Your task to perform on an android device: empty trash in google photos Image 0: 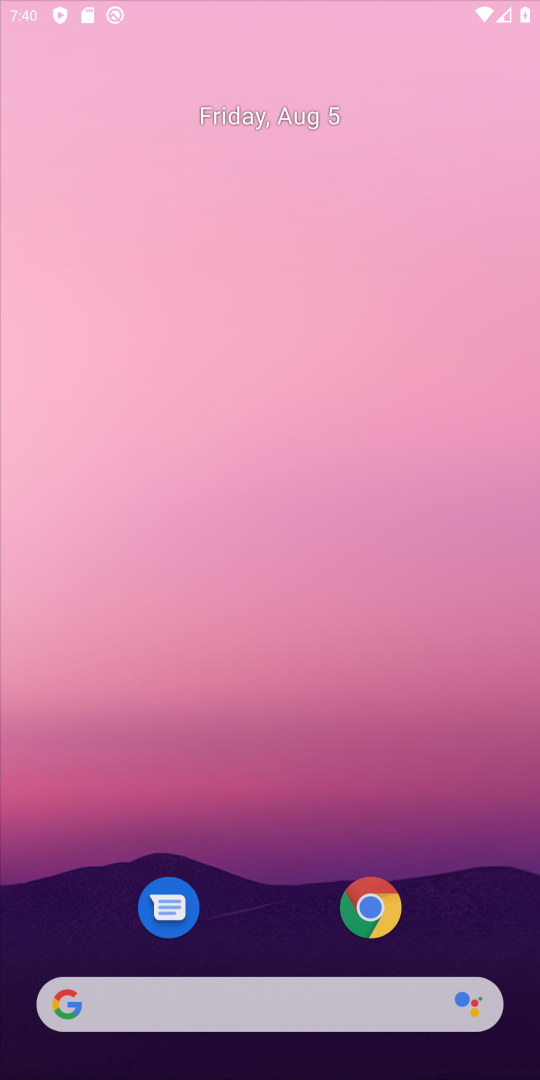
Step 0: press home button
Your task to perform on an android device: empty trash in google photos Image 1: 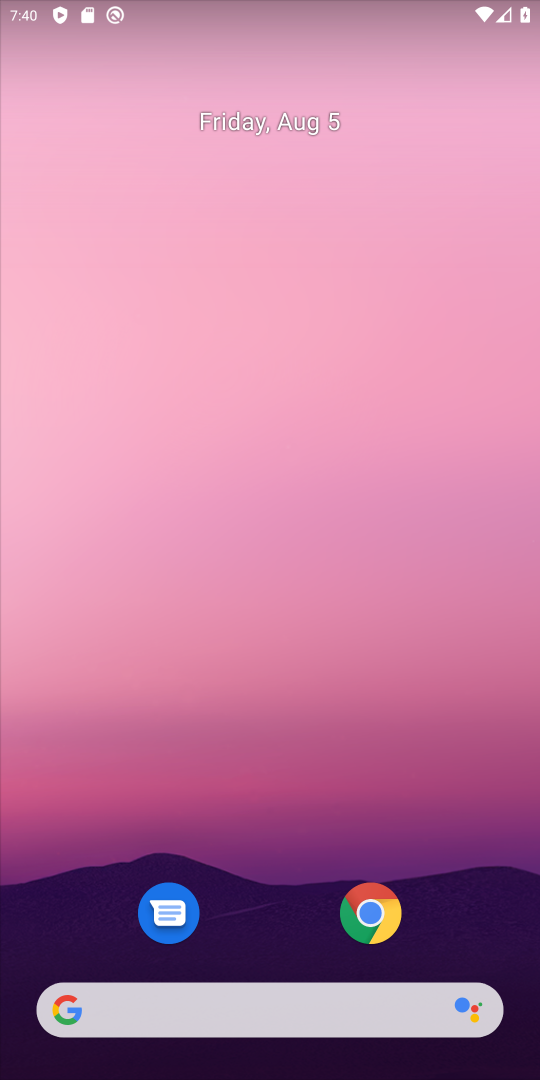
Step 1: drag from (272, 924) to (276, 316)
Your task to perform on an android device: empty trash in google photos Image 2: 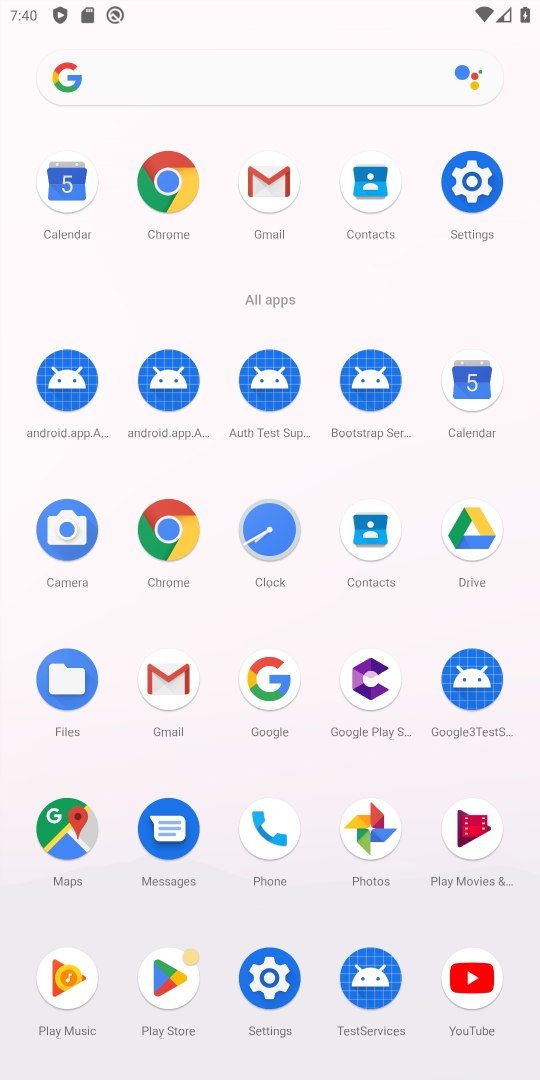
Step 2: click (374, 818)
Your task to perform on an android device: empty trash in google photos Image 3: 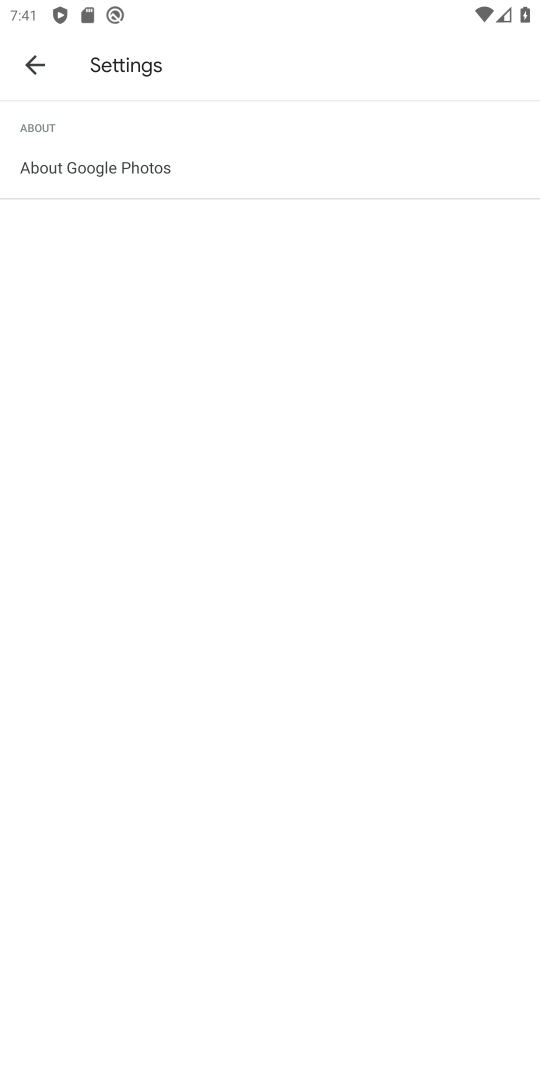
Step 3: press back button
Your task to perform on an android device: empty trash in google photos Image 4: 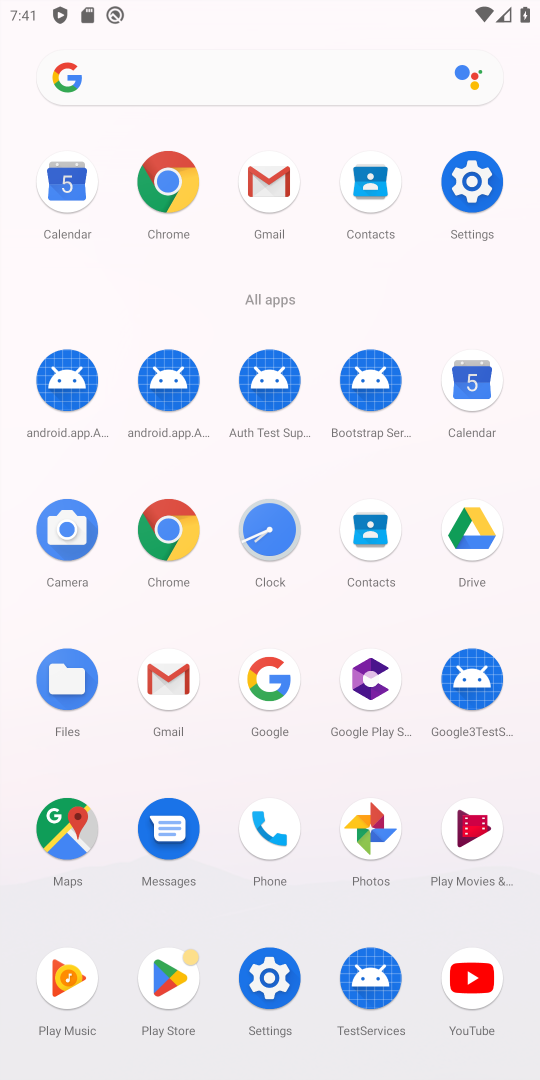
Step 4: click (378, 837)
Your task to perform on an android device: empty trash in google photos Image 5: 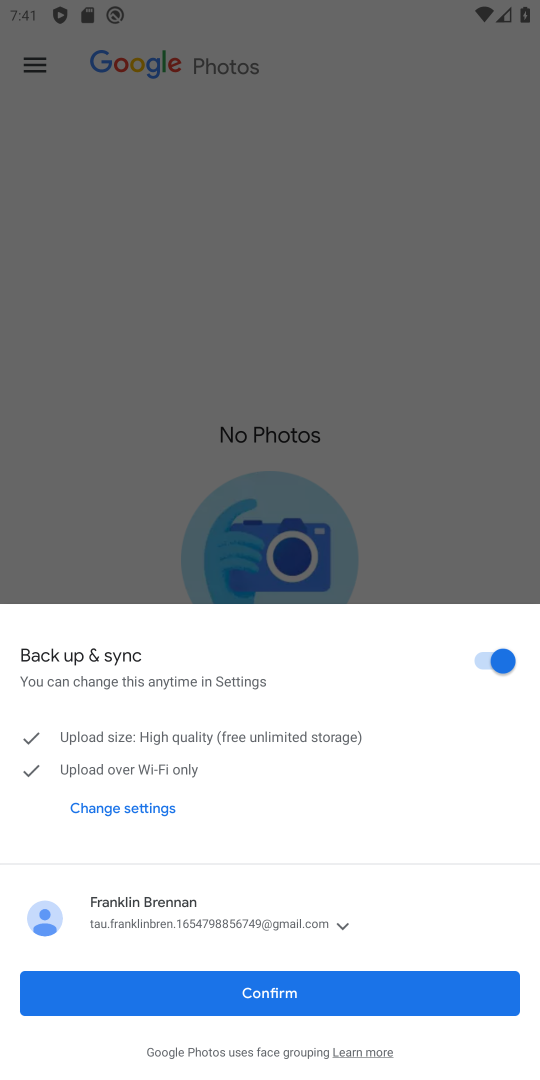
Step 5: click (335, 985)
Your task to perform on an android device: empty trash in google photos Image 6: 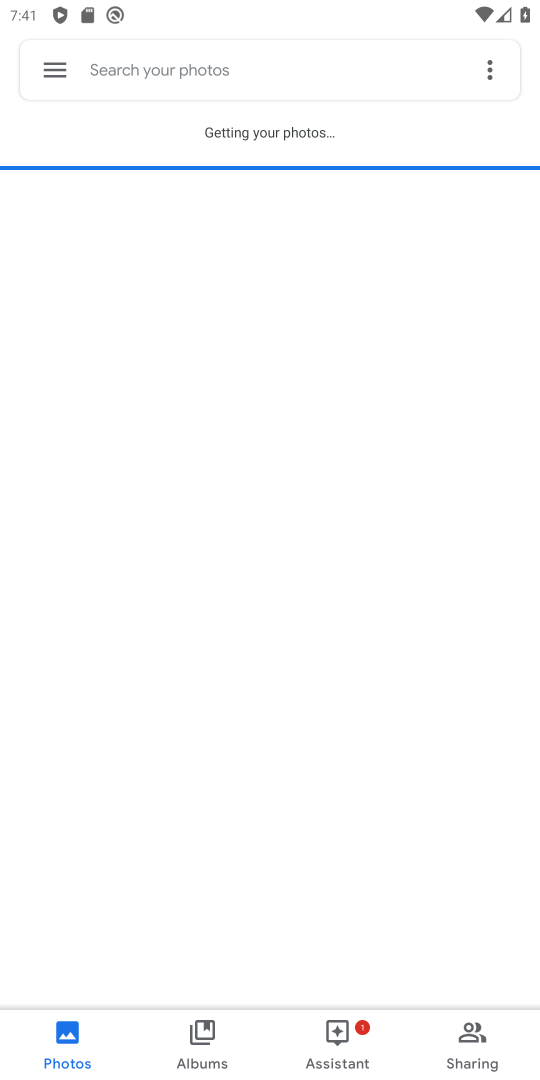
Step 6: click (59, 63)
Your task to perform on an android device: empty trash in google photos Image 7: 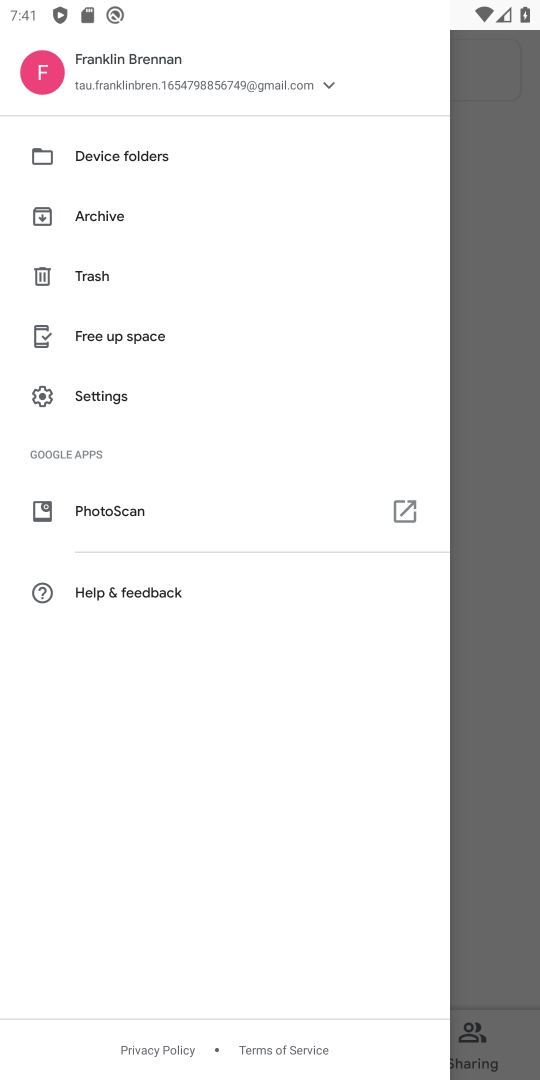
Step 7: click (102, 281)
Your task to perform on an android device: empty trash in google photos Image 8: 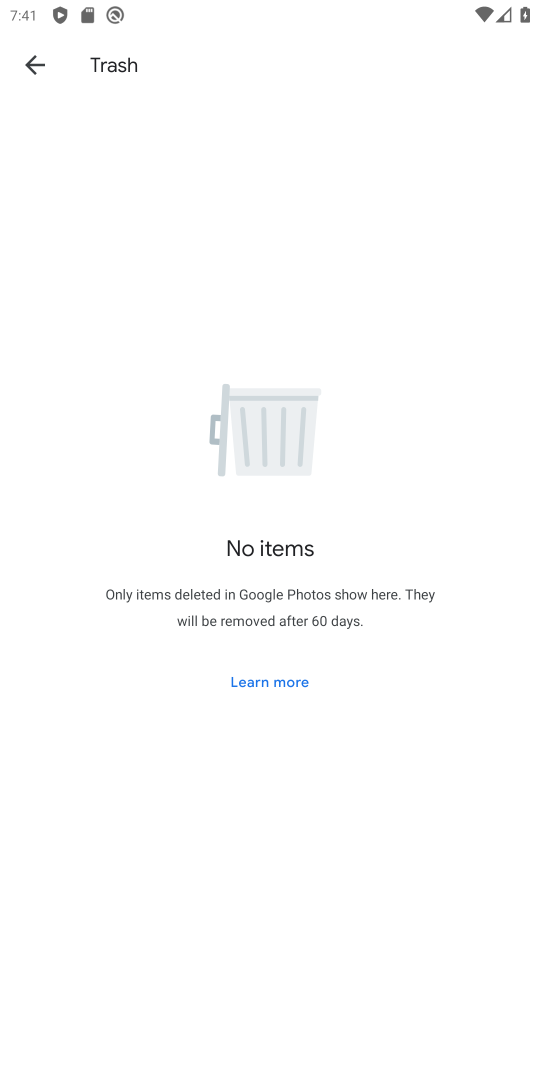
Step 8: task complete